Your task to perform on an android device: set default search engine in the chrome app Image 0: 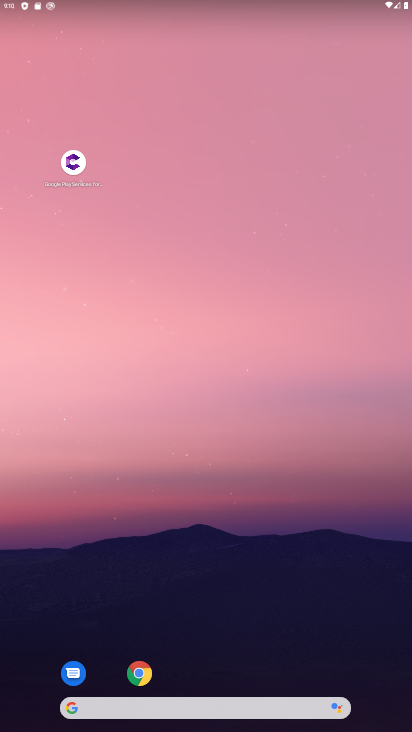
Step 0: drag from (365, 632) to (356, 96)
Your task to perform on an android device: set default search engine in the chrome app Image 1: 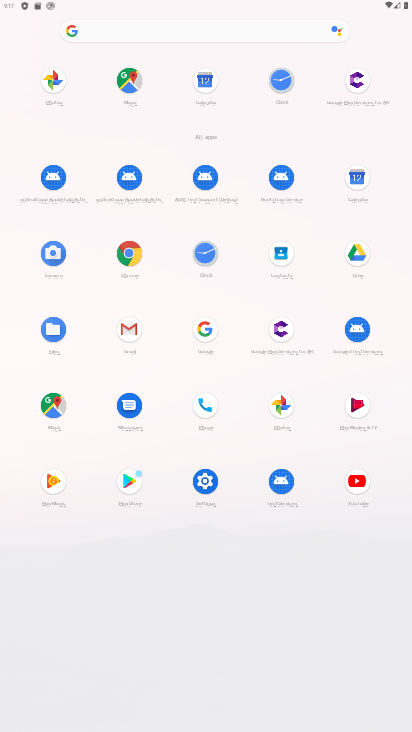
Step 1: click (125, 252)
Your task to perform on an android device: set default search engine in the chrome app Image 2: 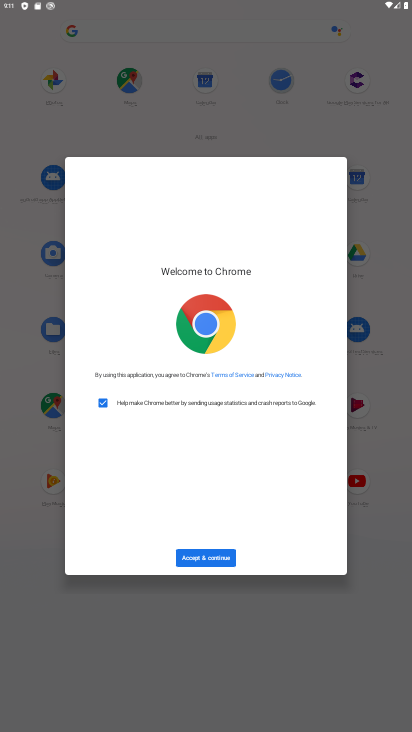
Step 2: click (202, 562)
Your task to perform on an android device: set default search engine in the chrome app Image 3: 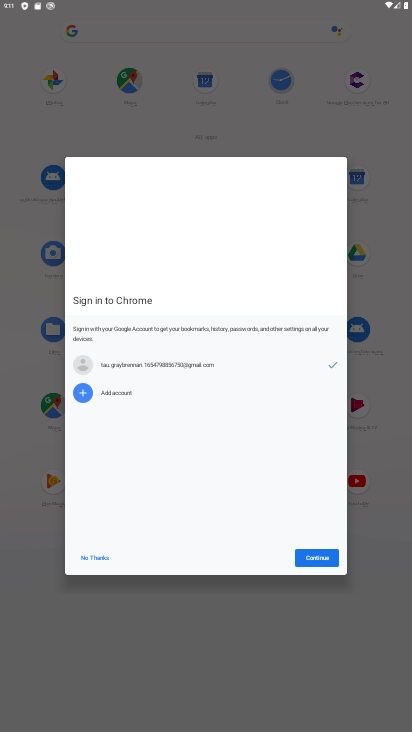
Step 3: click (318, 554)
Your task to perform on an android device: set default search engine in the chrome app Image 4: 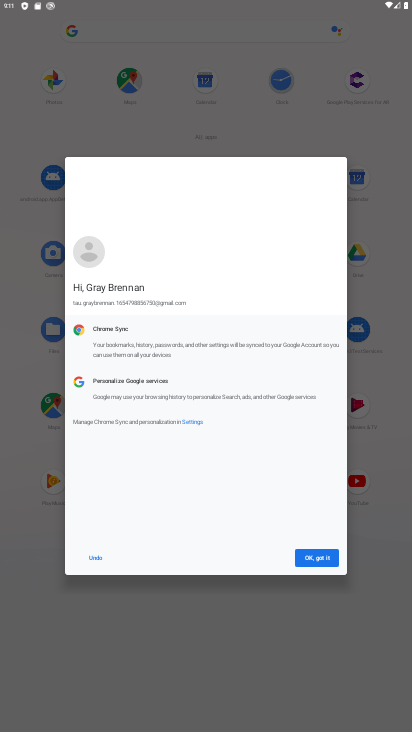
Step 4: click (318, 554)
Your task to perform on an android device: set default search engine in the chrome app Image 5: 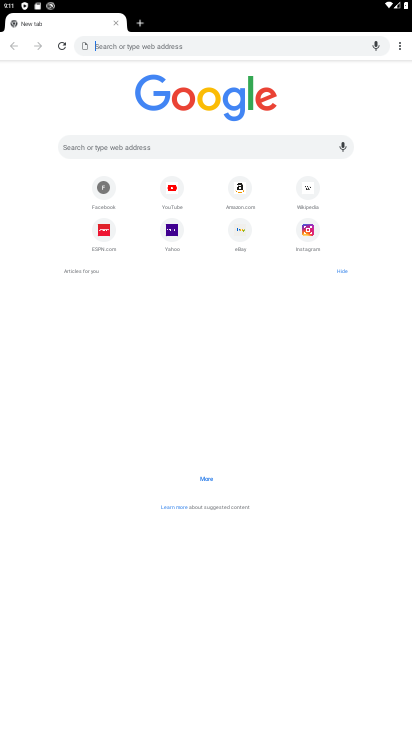
Step 5: click (397, 47)
Your task to perform on an android device: set default search engine in the chrome app Image 6: 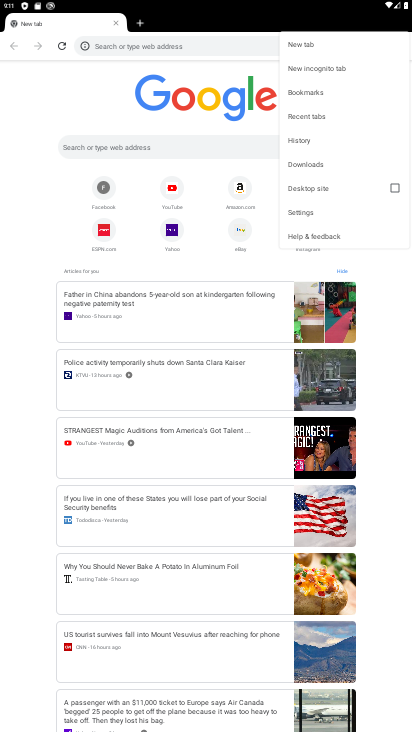
Step 6: click (305, 211)
Your task to perform on an android device: set default search engine in the chrome app Image 7: 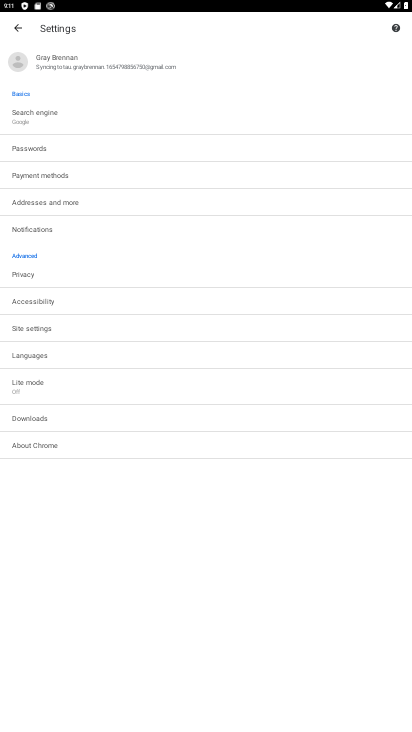
Step 7: click (157, 123)
Your task to perform on an android device: set default search engine in the chrome app Image 8: 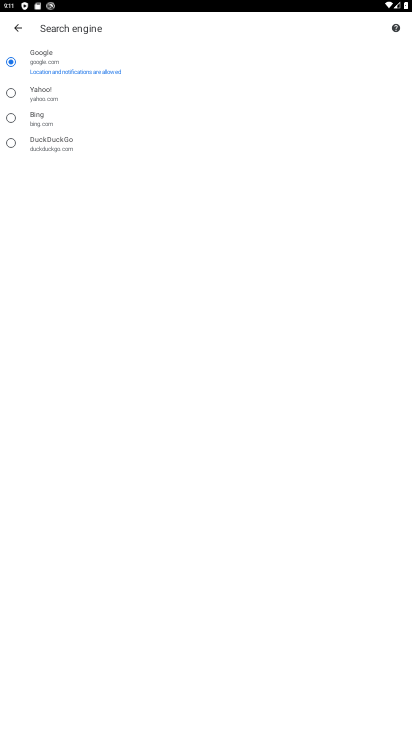
Step 8: click (39, 118)
Your task to perform on an android device: set default search engine in the chrome app Image 9: 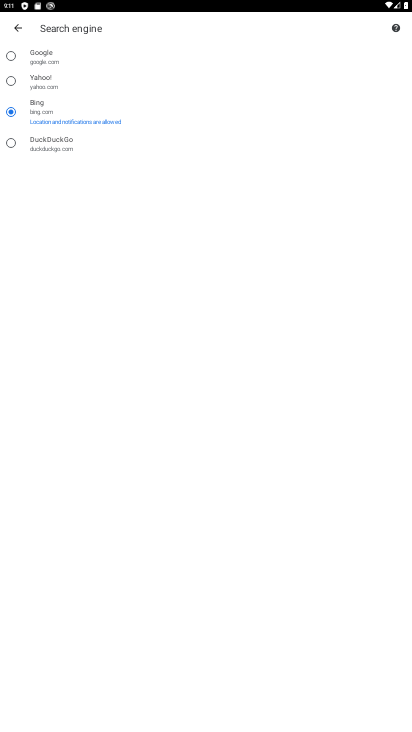
Step 9: task complete